Your task to perform on an android device: turn off location Image 0: 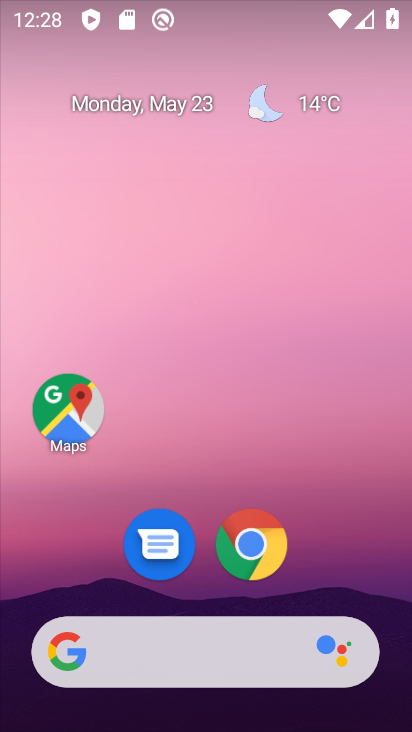
Step 0: drag from (316, 504) to (187, 135)
Your task to perform on an android device: turn off location Image 1: 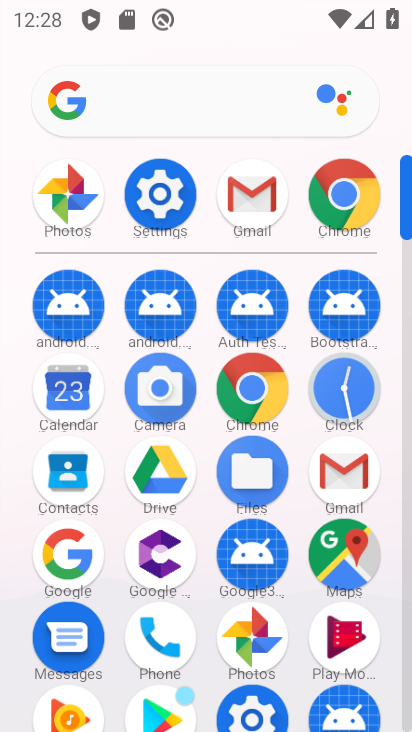
Step 1: click (158, 196)
Your task to perform on an android device: turn off location Image 2: 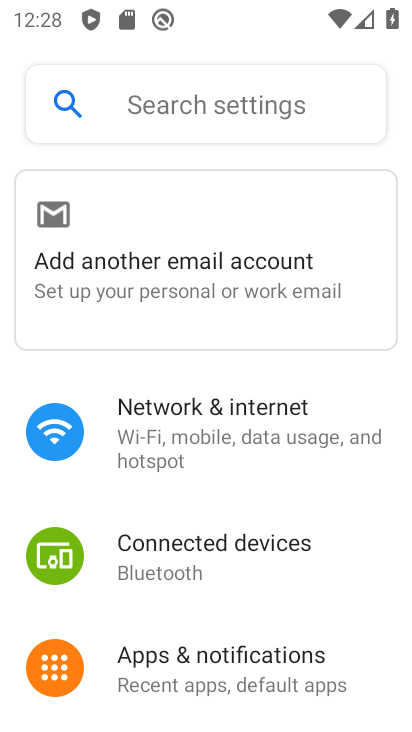
Step 2: drag from (169, 527) to (150, 132)
Your task to perform on an android device: turn off location Image 3: 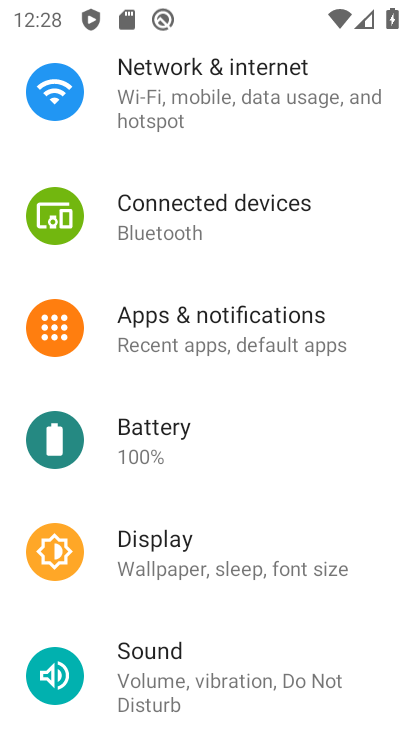
Step 3: drag from (240, 539) to (240, 161)
Your task to perform on an android device: turn off location Image 4: 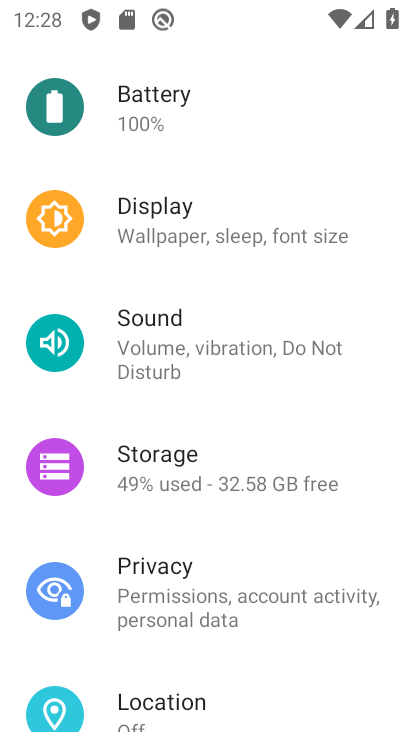
Step 4: drag from (201, 516) to (237, 227)
Your task to perform on an android device: turn off location Image 5: 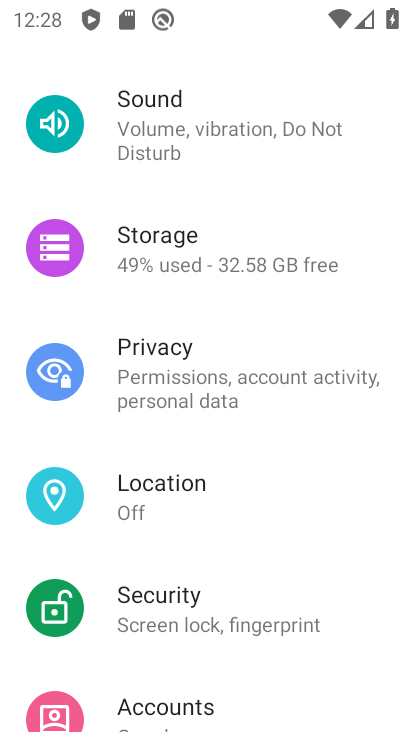
Step 5: click (199, 500)
Your task to perform on an android device: turn off location Image 6: 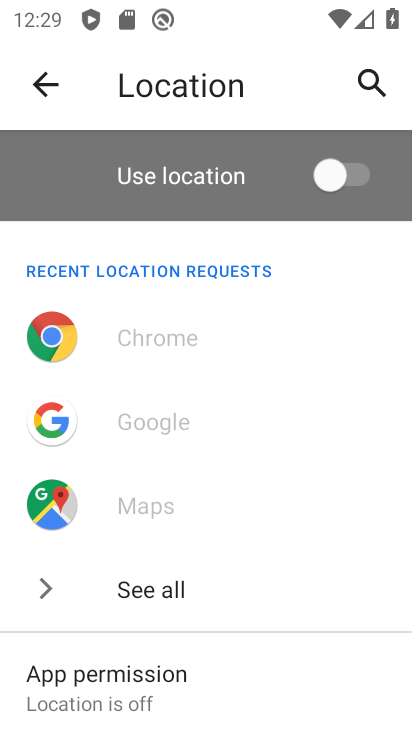
Step 6: task complete